Your task to perform on an android device: search for starred emails in the gmail app Image 0: 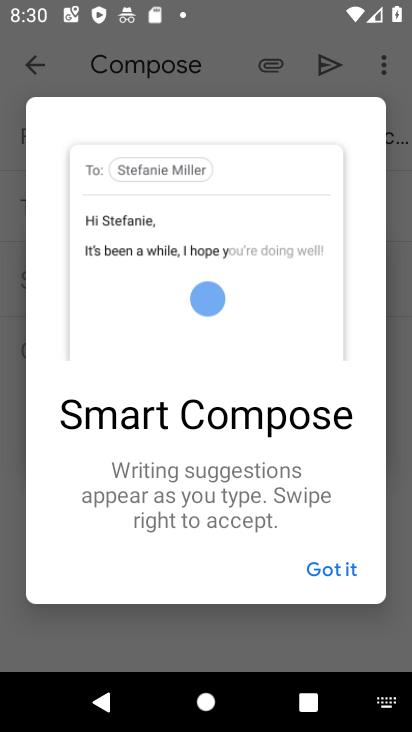
Step 0: press home button
Your task to perform on an android device: search for starred emails in the gmail app Image 1: 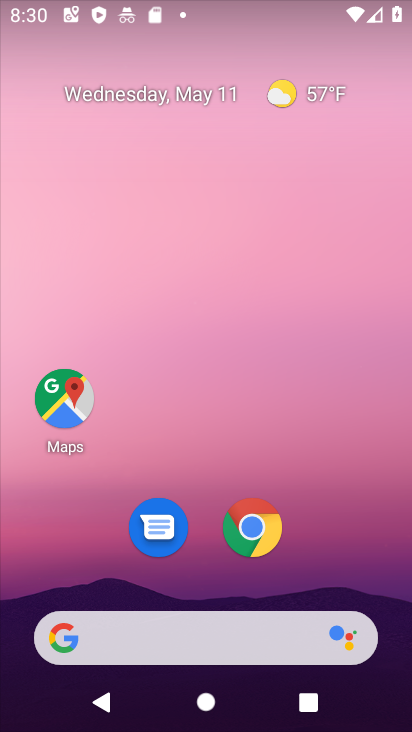
Step 1: drag from (343, 334) to (338, 16)
Your task to perform on an android device: search for starred emails in the gmail app Image 2: 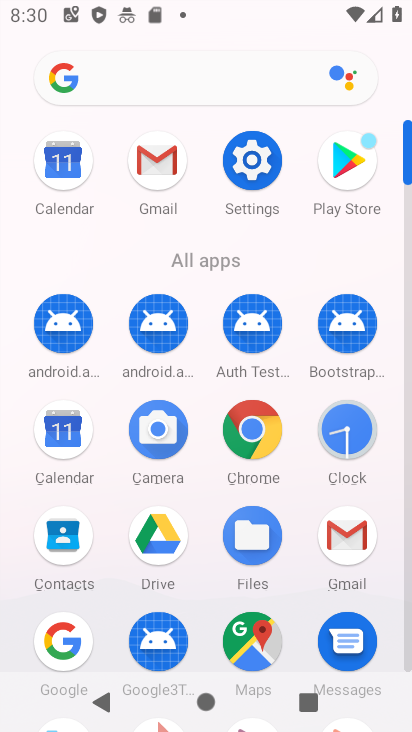
Step 2: click (155, 171)
Your task to perform on an android device: search for starred emails in the gmail app Image 3: 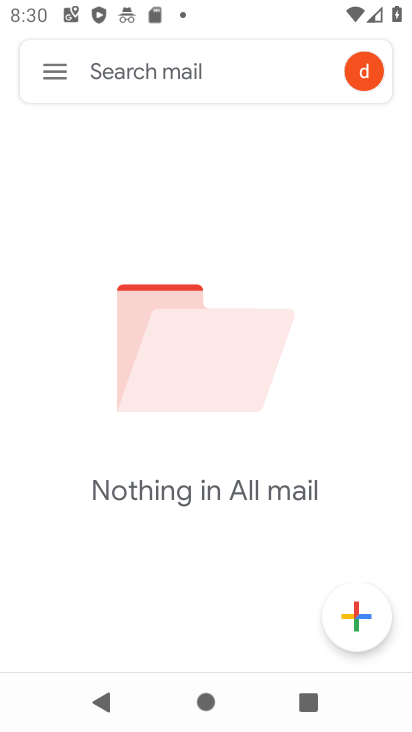
Step 3: click (46, 75)
Your task to perform on an android device: search for starred emails in the gmail app Image 4: 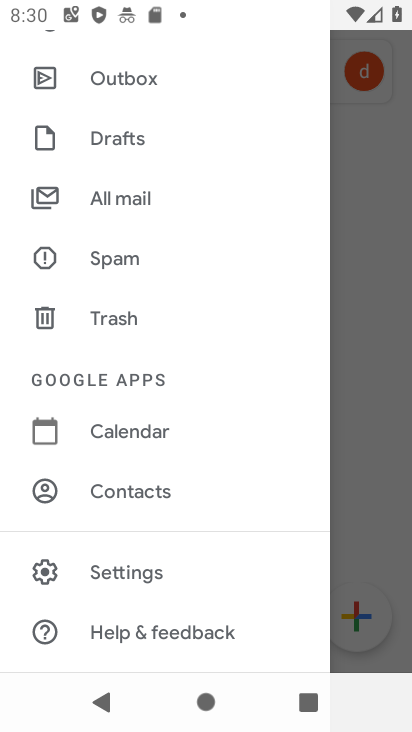
Step 4: drag from (238, 194) to (223, 671)
Your task to perform on an android device: search for starred emails in the gmail app Image 5: 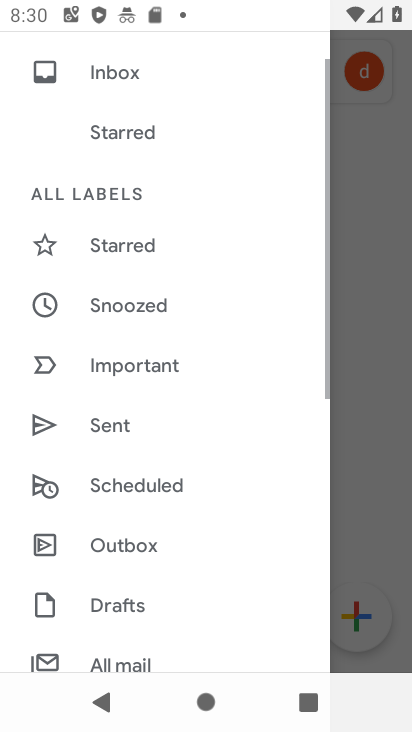
Step 5: click (129, 247)
Your task to perform on an android device: search for starred emails in the gmail app Image 6: 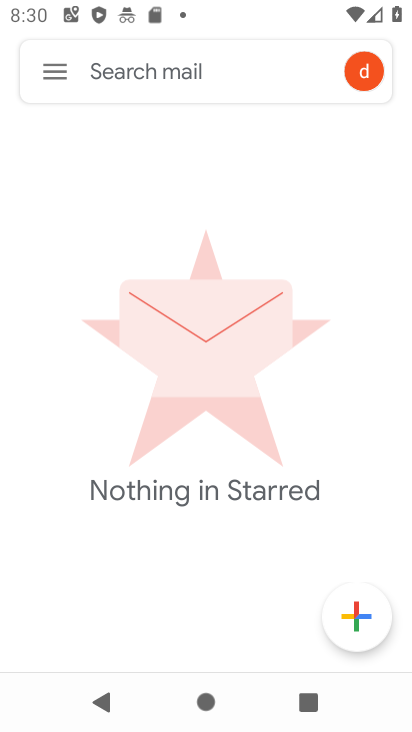
Step 6: task complete